Your task to perform on an android device: toggle location history Image 0: 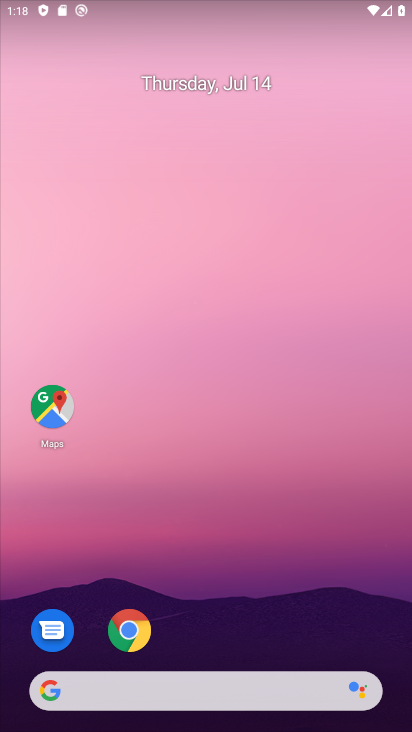
Step 0: click (45, 408)
Your task to perform on an android device: toggle location history Image 1: 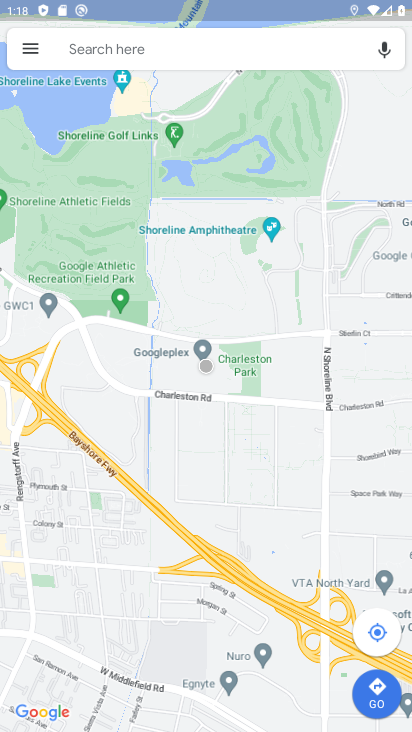
Step 1: click (33, 50)
Your task to perform on an android device: toggle location history Image 2: 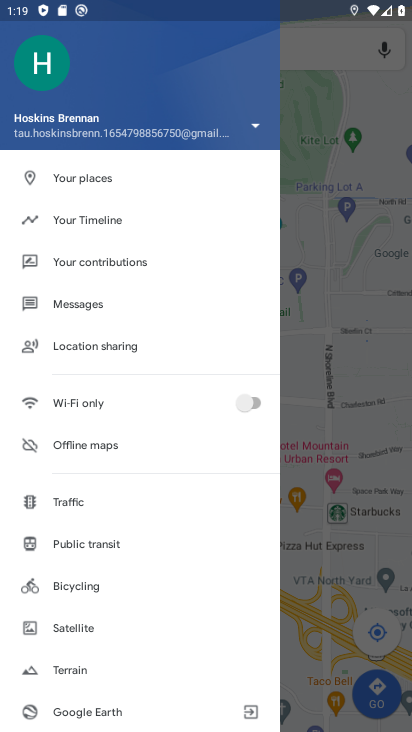
Step 2: press back button
Your task to perform on an android device: toggle location history Image 3: 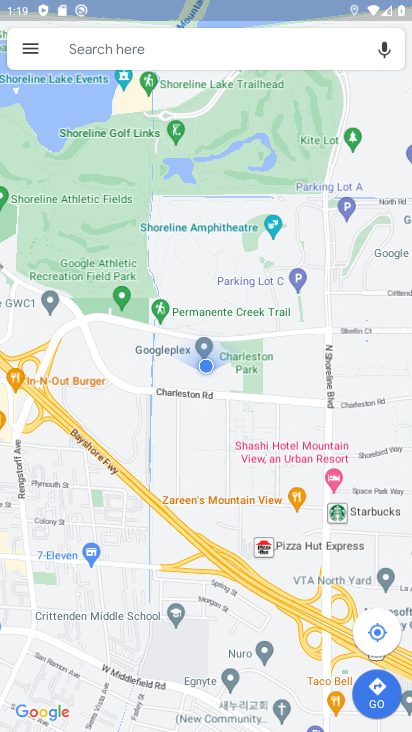
Step 3: press back button
Your task to perform on an android device: toggle location history Image 4: 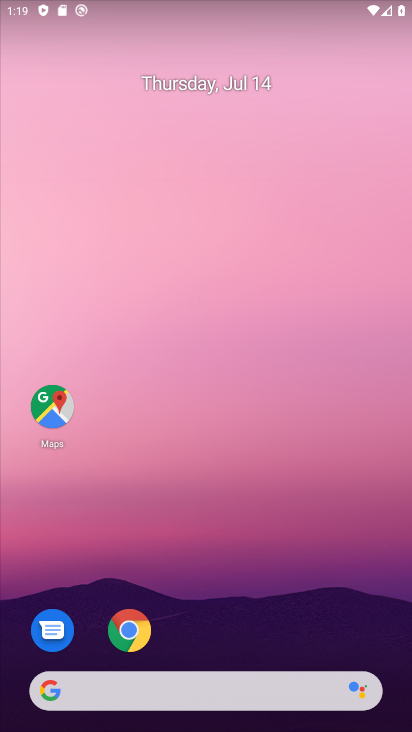
Step 4: drag from (230, 568) to (307, 11)
Your task to perform on an android device: toggle location history Image 5: 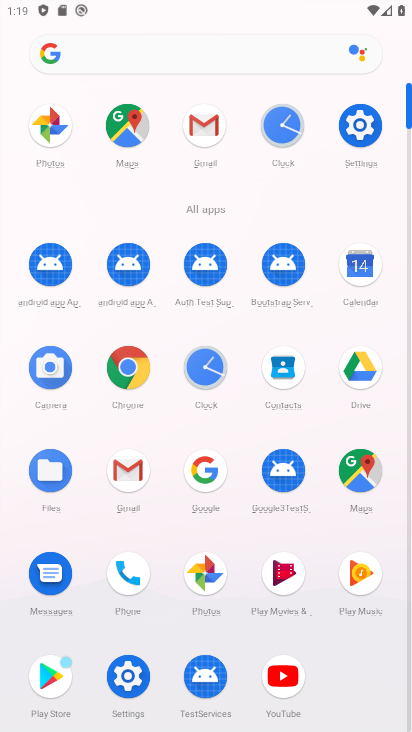
Step 5: click (341, 138)
Your task to perform on an android device: toggle location history Image 6: 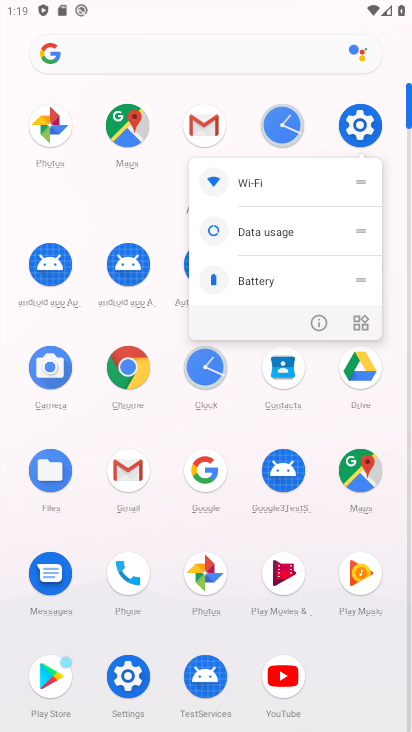
Step 6: click (371, 112)
Your task to perform on an android device: toggle location history Image 7: 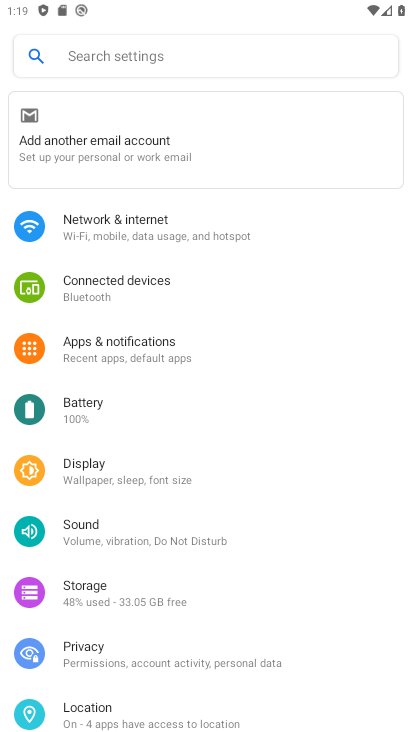
Step 7: click (90, 708)
Your task to perform on an android device: toggle location history Image 8: 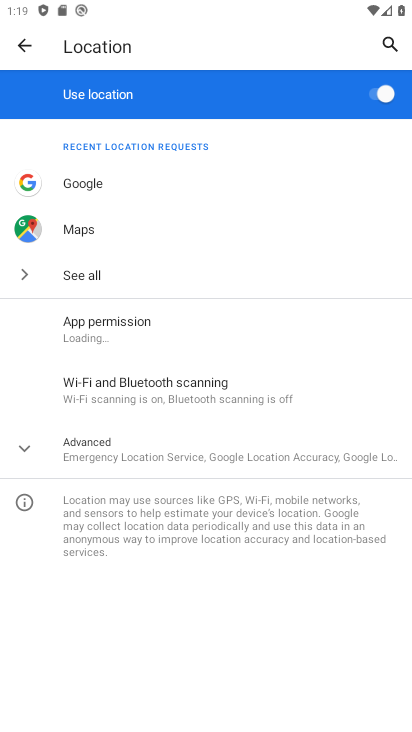
Step 8: click (169, 454)
Your task to perform on an android device: toggle location history Image 9: 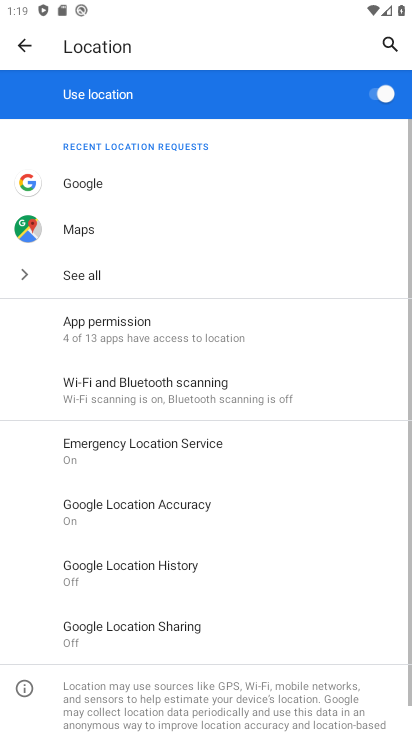
Step 9: click (128, 574)
Your task to perform on an android device: toggle location history Image 10: 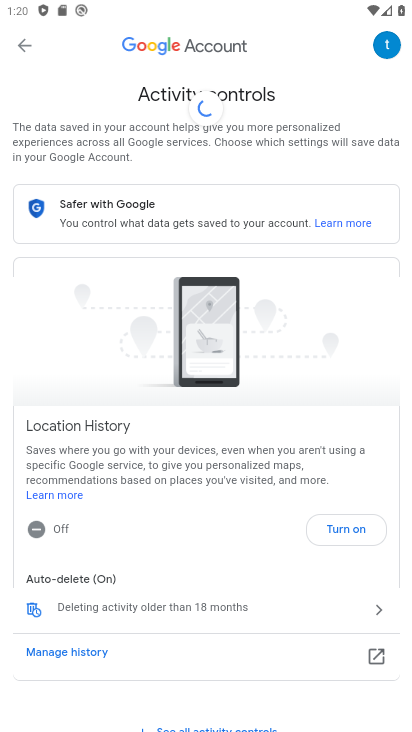
Step 10: click (334, 528)
Your task to perform on an android device: toggle location history Image 11: 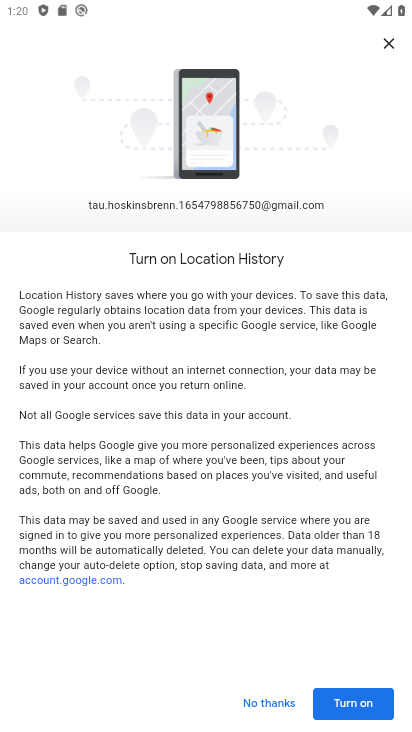
Step 11: click (365, 697)
Your task to perform on an android device: toggle location history Image 12: 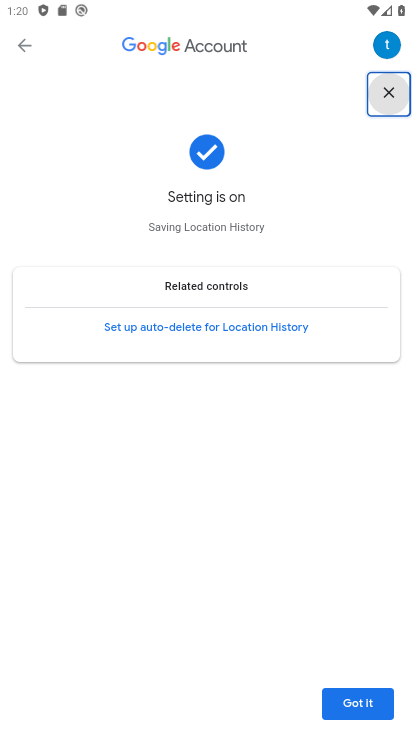
Step 12: task complete